Your task to perform on an android device: Open the phone app and click the voicemail tab. Image 0: 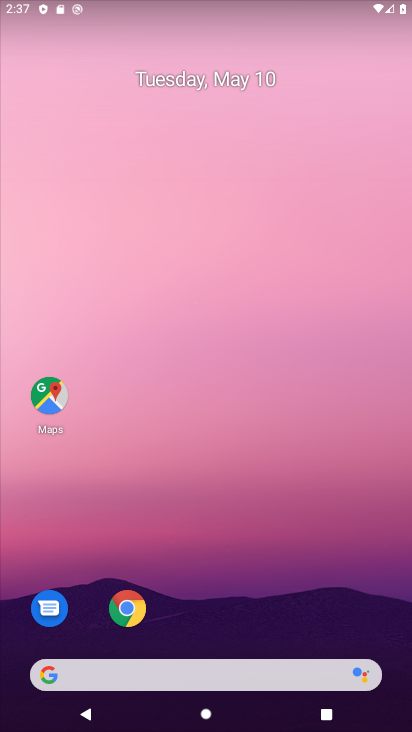
Step 0: drag from (394, 659) to (278, 112)
Your task to perform on an android device: Open the phone app and click the voicemail tab. Image 1: 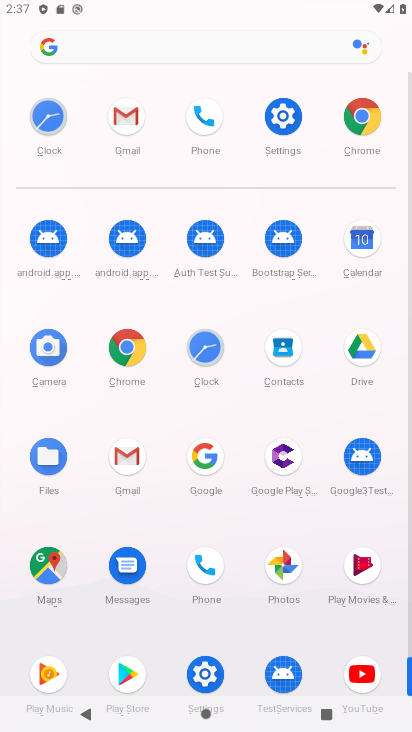
Step 1: click (205, 566)
Your task to perform on an android device: Open the phone app and click the voicemail tab. Image 2: 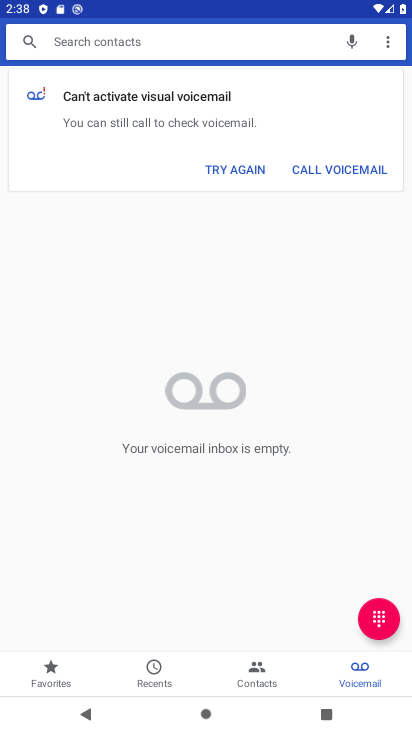
Step 2: task complete